Your task to perform on an android device: change your default location settings in chrome Image 0: 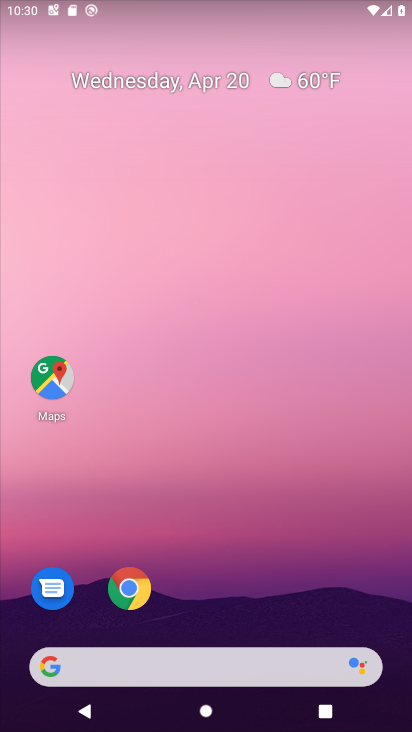
Step 0: click (119, 593)
Your task to perform on an android device: change your default location settings in chrome Image 1: 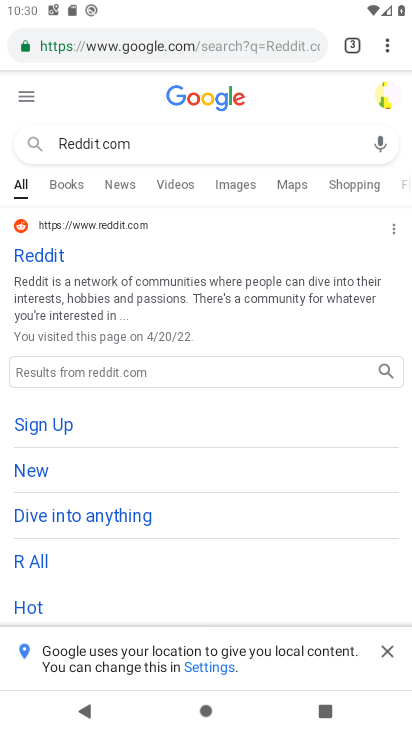
Step 1: click (388, 44)
Your task to perform on an android device: change your default location settings in chrome Image 2: 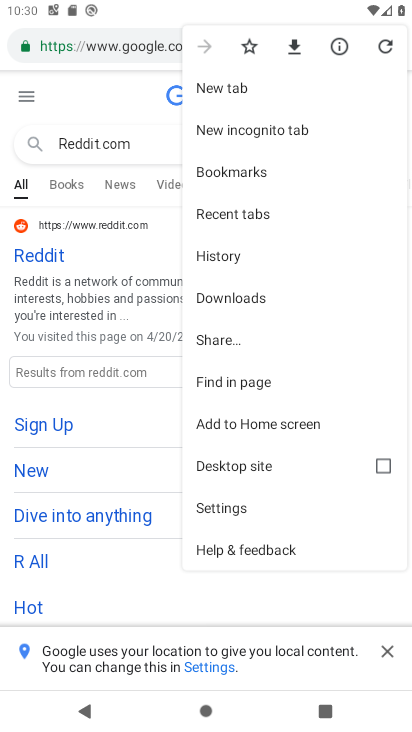
Step 2: click (235, 506)
Your task to perform on an android device: change your default location settings in chrome Image 3: 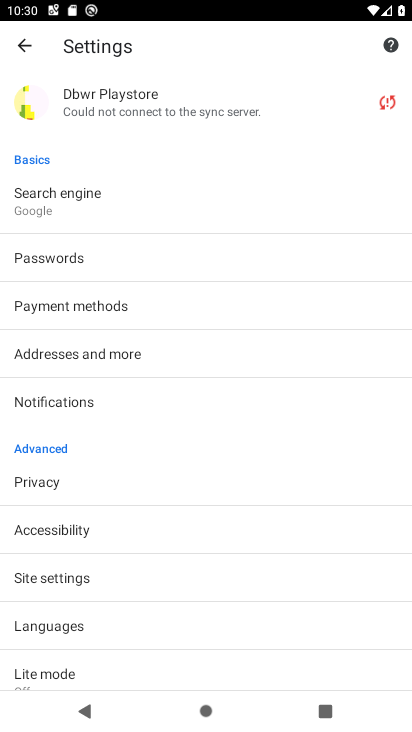
Step 3: drag from (175, 602) to (188, 279)
Your task to perform on an android device: change your default location settings in chrome Image 4: 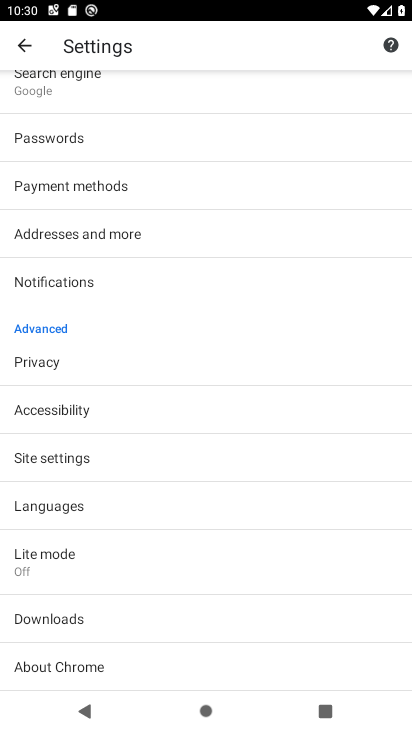
Step 4: click (49, 453)
Your task to perform on an android device: change your default location settings in chrome Image 5: 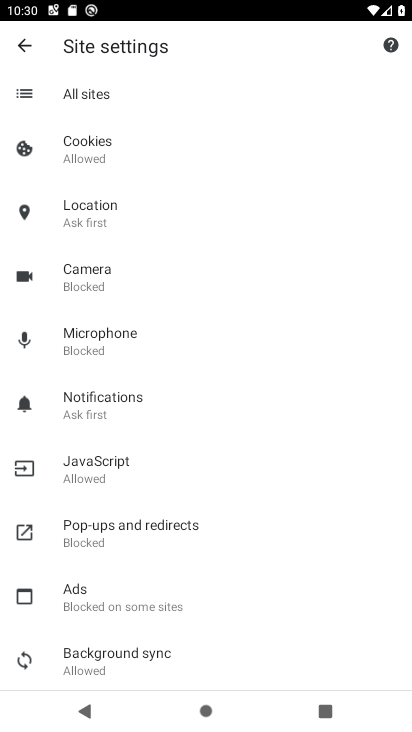
Step 5: click (94, 204)
Your task to perform on an android device: change your default location settings in chrome Image 6: 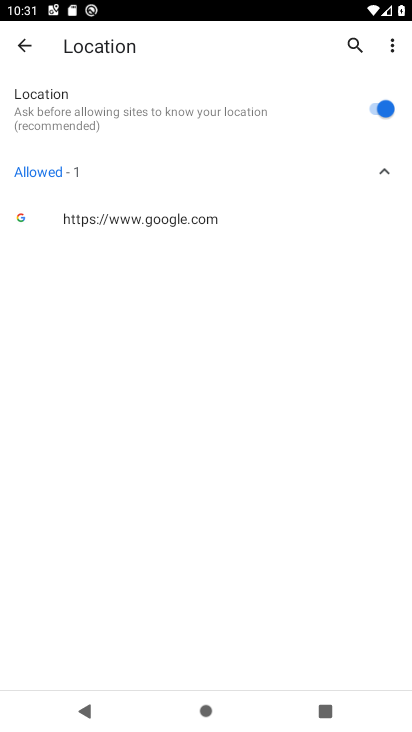
Step 6: click (381, 109)
Your task to perform on an android device: change your default location settings in chrome Image 7: 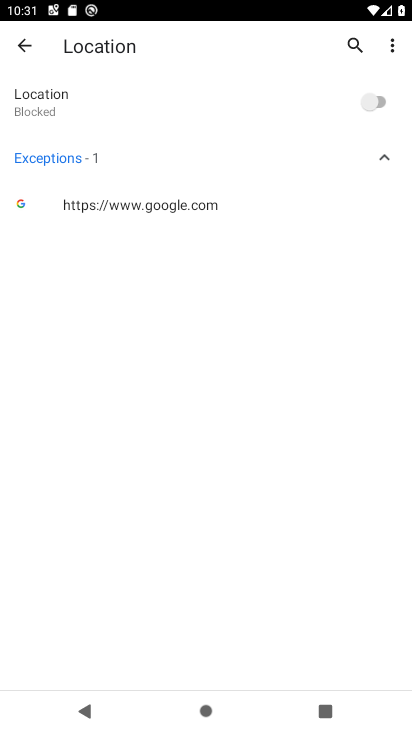
Step 7: task complete